Your task to perform on an android device: add a contact Image 0: 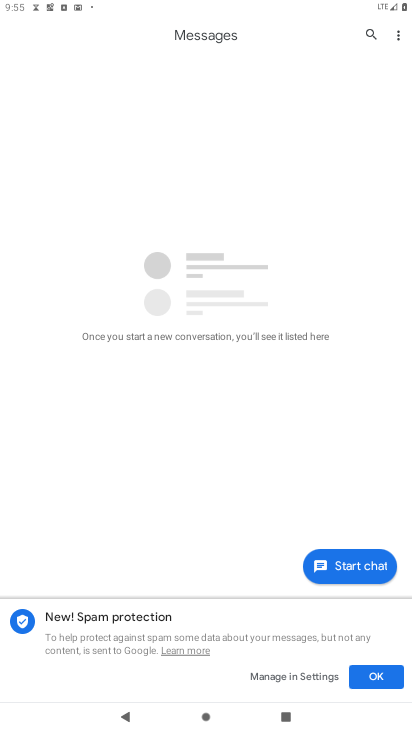
Step 0: drag from (249, 578) to (238, 401)
Your task to perform on an android device: add a contact Image 1: 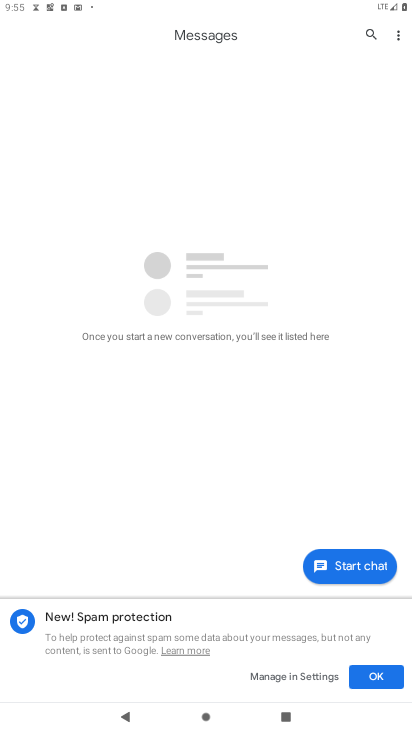
Step 1: press home button
Your task to perform on an android device: add a contact Image 2: 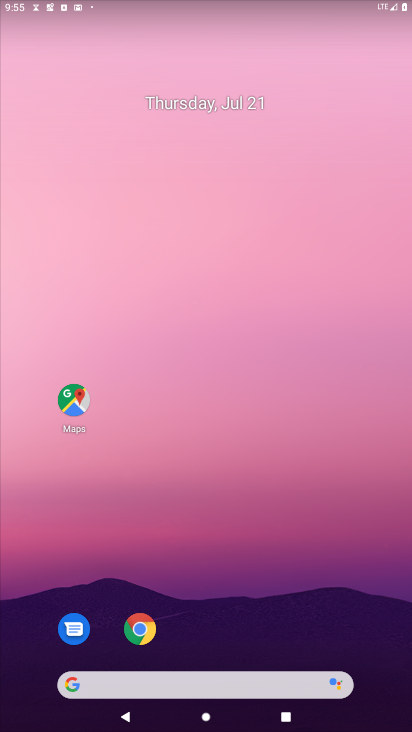
Step 2: drag from (206, 576) to (246, 62)
Your task to perform on an android device: add a contact Image 3: 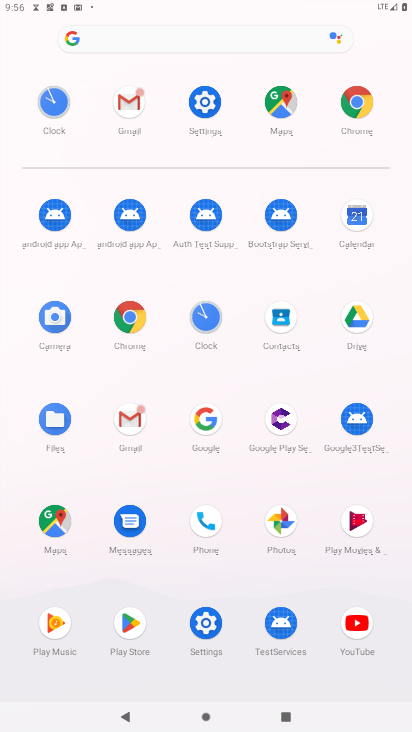
Step 3: click (281, 320)
Your task to perform on an android device: add a contact Image 4: 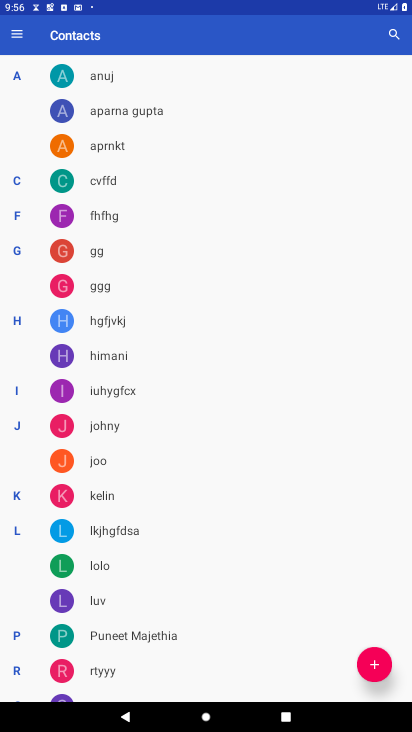
Step 4: click (277, 310)
Your task to perform on an android device: add a contact Image 5: 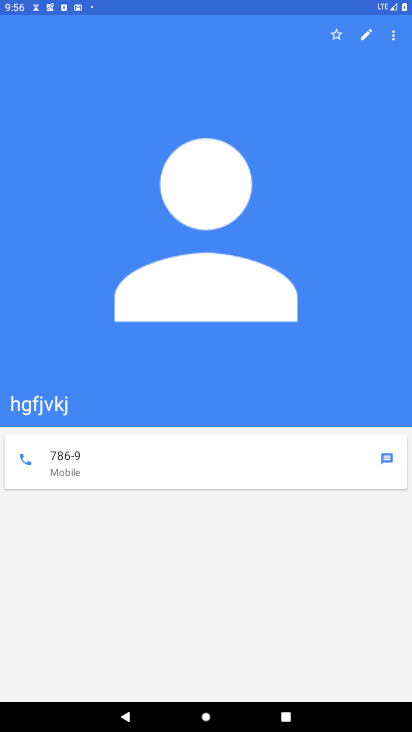
Step 5: press back button
Your task to perform on an android device: add a contact Image 6: 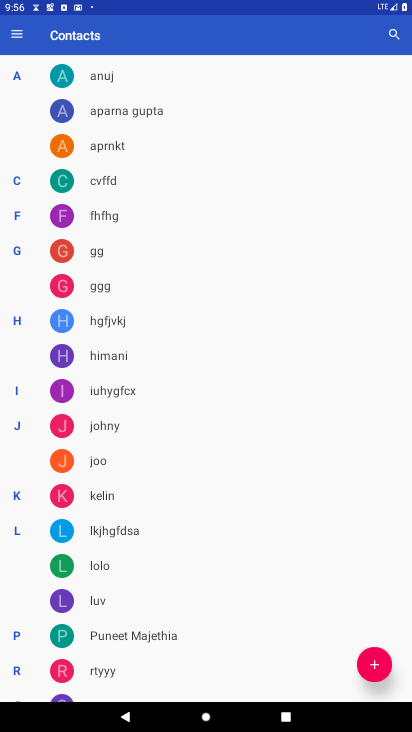
Step 6: click (370, 671)
Your task to perform on an android device: add a contact Image 7: 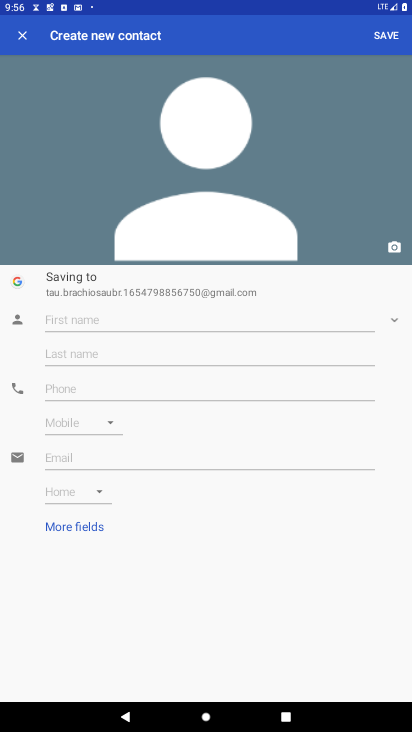
Step 7: click (114, 312)
Your task to perform on an android device: add a contact Image 8: 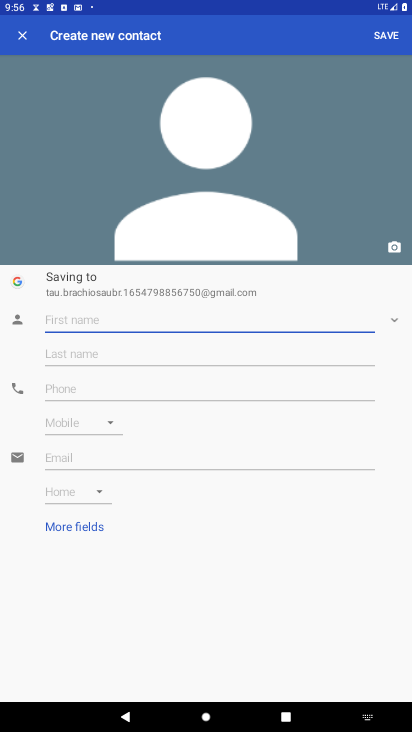
Step 8: type "ggdjgfjhgjhvng"
Your task to perform on an android device: add a contact Image 9: 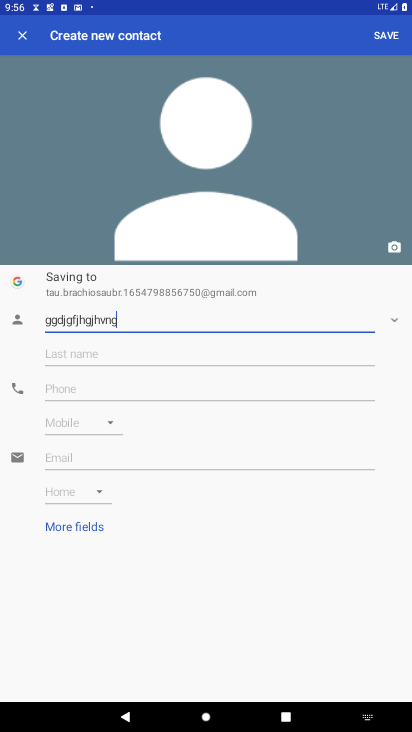
Step 9: type ""
Your task to perform on an android device: add a contact Image 10: 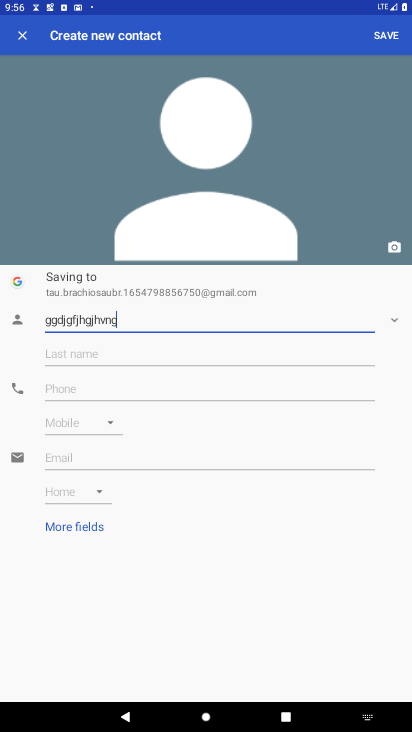
Step 10: click (390, 40)
Your task to perform on an android device: add a contact Image 11: 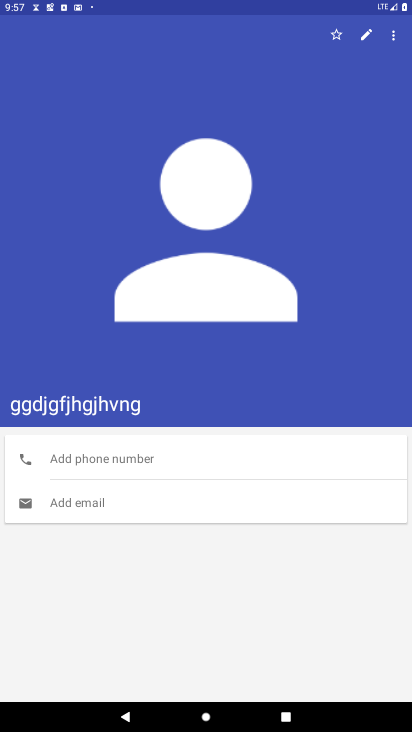
Step 11: task complete